Your task to perform on an android device: Set the phone to "Do not disturb". Image 0: 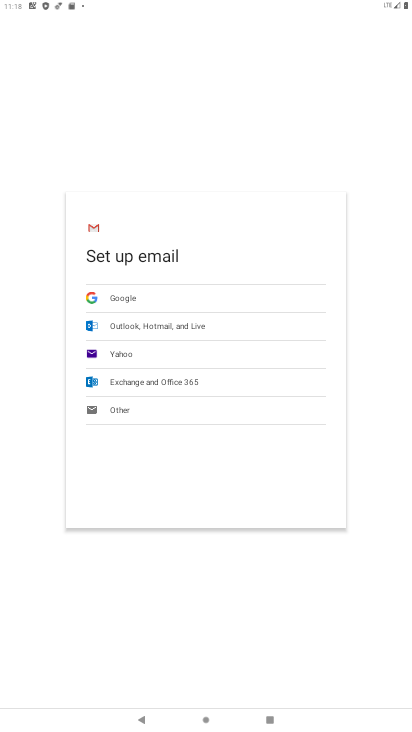
Step 0: press home button
Your task to perform on an android device: Set the phone to "Do not disturb". Image 1: 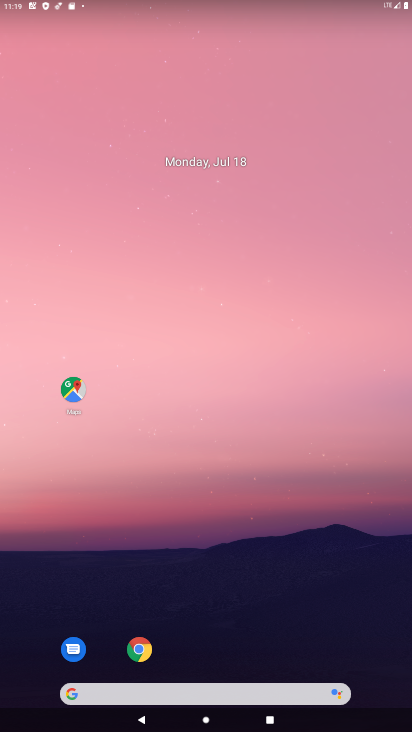
Step 1: drag from (178, 728) to (185, 299)
Your task to perform on an android device: Set the phone to "Do not disturb". Image 2: 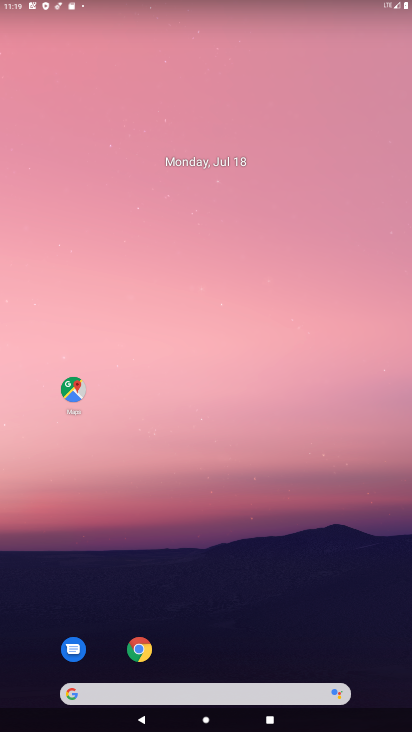
Step 2: drag from (166, 717) to (368, 118)
Your task to perform on an android device: Set the phone to "Do not disturb". Image 3: 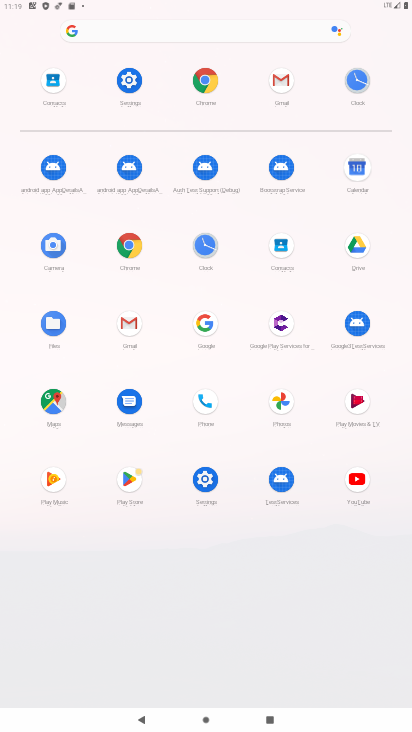
Step 3: click (124, 75)
Your task to perform on an android device: Set the phone to "Do not disturb". Image 4: 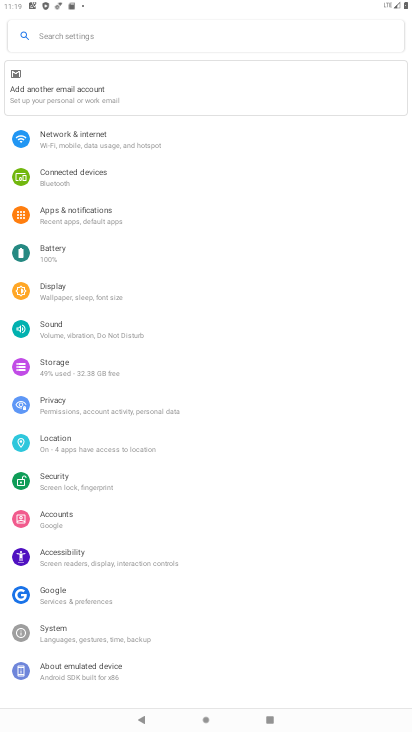
Step 4: click (124, 335)
Your task to perform on an android device: Set the phone to "Do not disturb". Image 5: 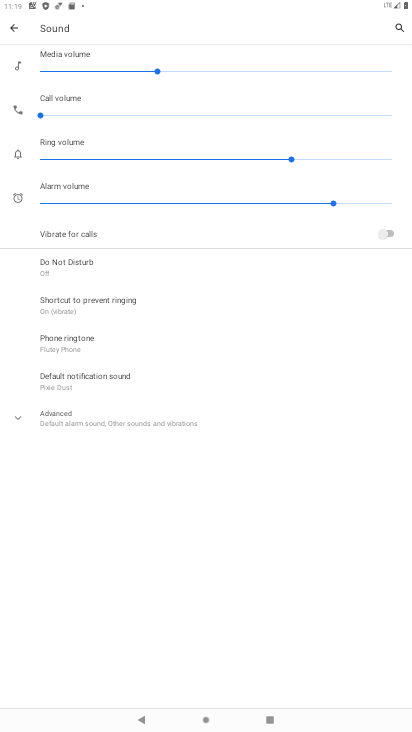
Step 5: task complete